Your task to perform on an android device: check battery use Image 0: 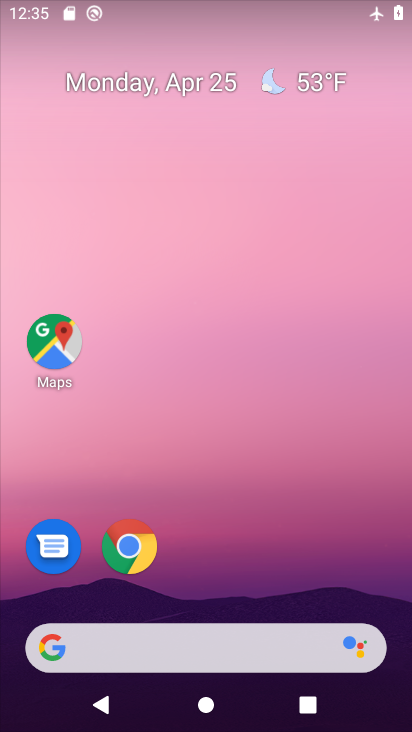
Step 0: drag from (298, 450) to (228, 92)
Your task to perform on an android device: check battery use Image 1: 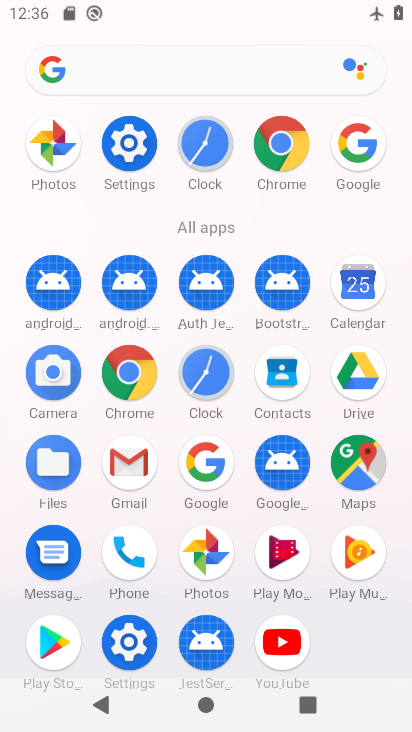
Step 1: click (126, 630)
Your task to perform on an android device: check battery use Image 2: 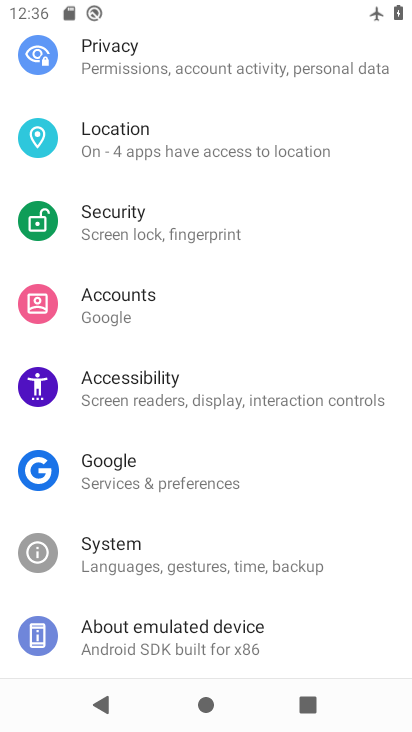
Step 2: click (147, 559)
Your task to perform on an android device: check battery use Image 3: 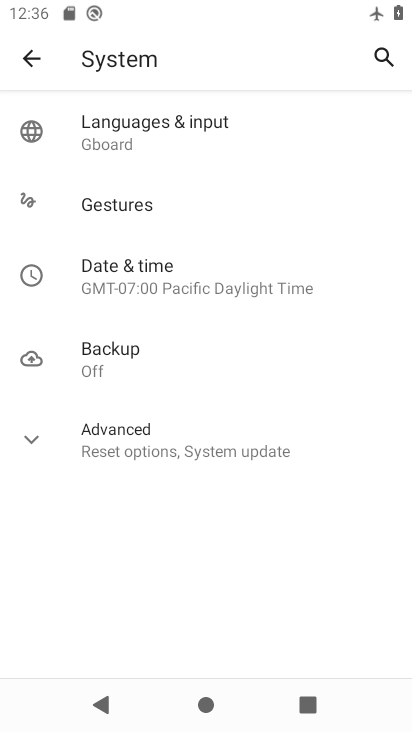
Step 3: click (25, 52)
Your task to perform on an android device: check battery use Image 4: 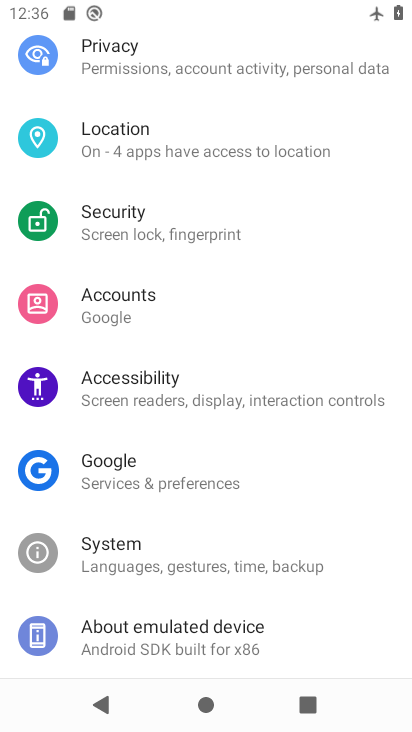
Step 4: drag from (192, 142) to (251, 567)
Your task to perform on an android device: check battery use Image 5: 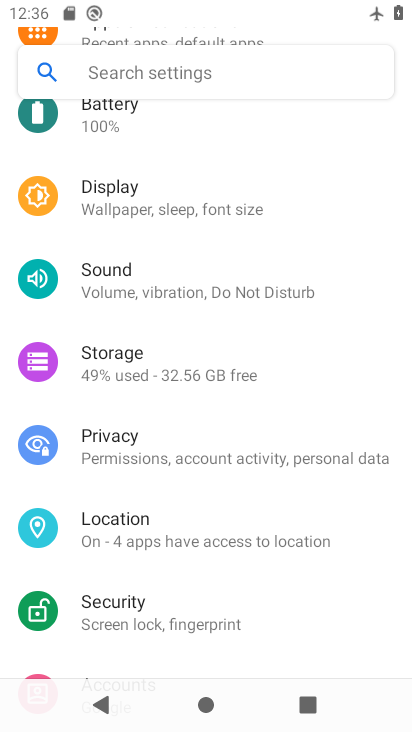
Step 5: drag from (162, 217) to (208, 566)
Your task to perform on an android device: check battery use Image 6: 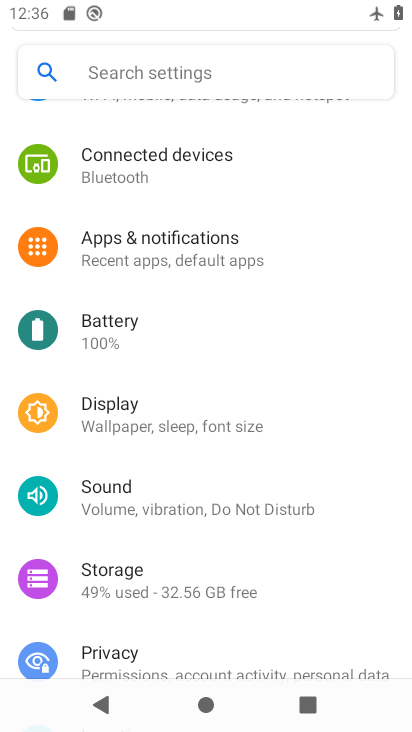
Step 6: click (157, 334)
Your task to perform on an android device: check battery use Image 7: 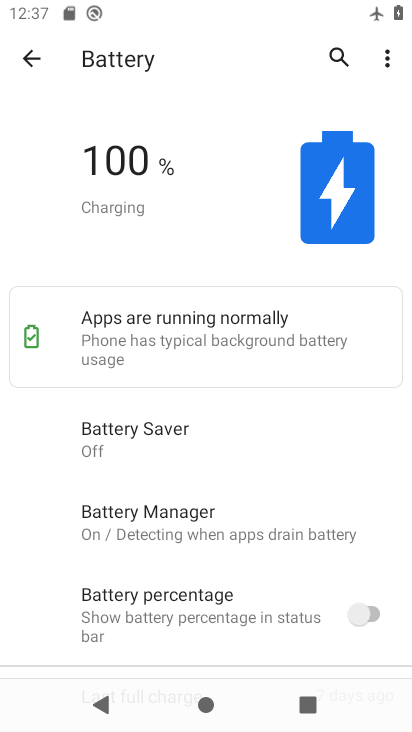
Step 7: task complete